Your task to perform on an android device: Go to Google maps Image 0: 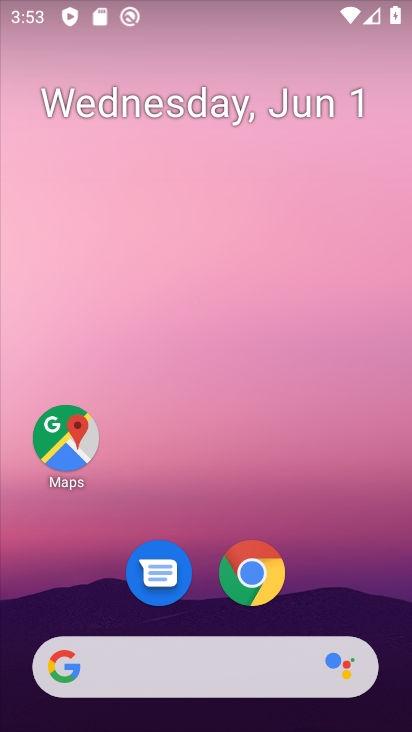
Step 0: click (64, 420)
Your task to perform on an android device: Go to Google maps Image 1: 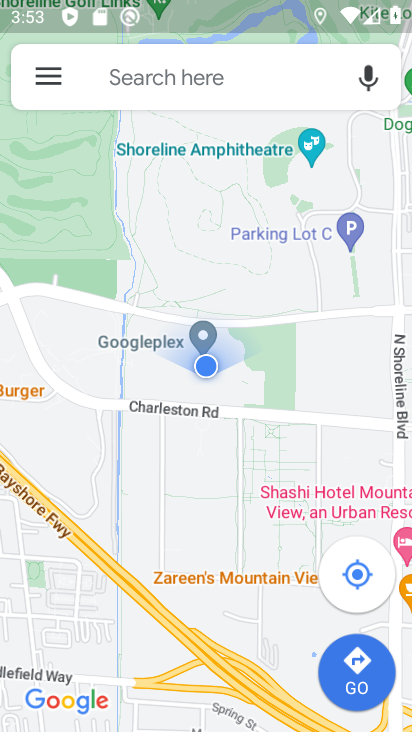
Step 1: task complete